Your task to perform on an android device: Open CNN.com Image 0: 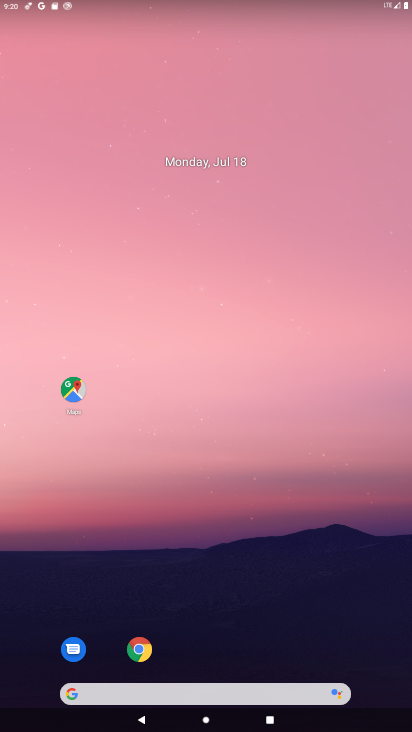
Step 0: drag from (227, 687) to (278, 19)
Your task to perform on an android device: Open CNN.com Image 1: 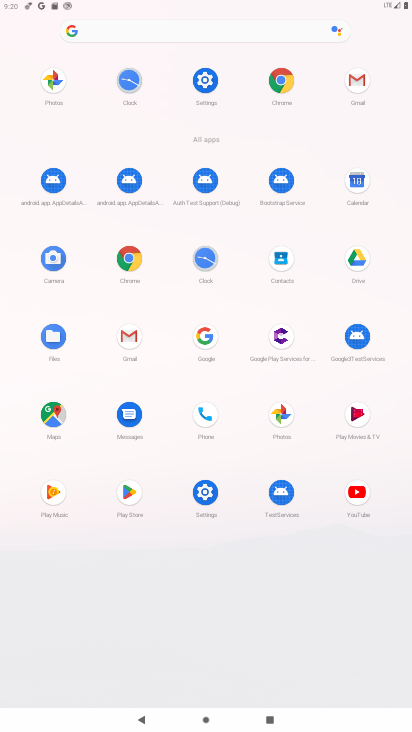
Step 1: drag from (232, 678) to (276, 494)
Your task to perform on an android device: Open CNN.com Image 2: 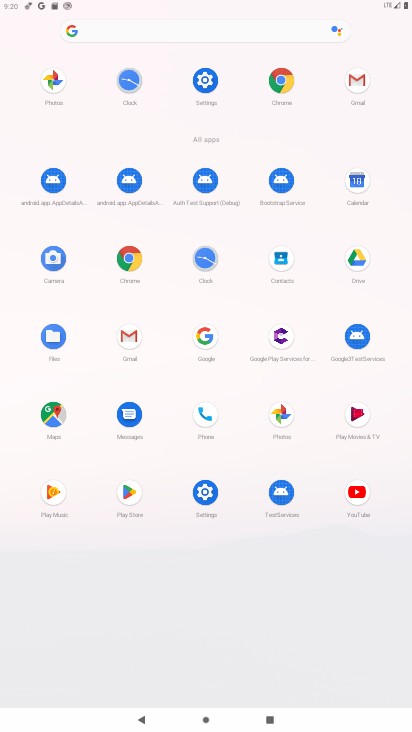
Step 2: click (201, 337)
Your task to perform on an android device: Open CNN.com Image 3: 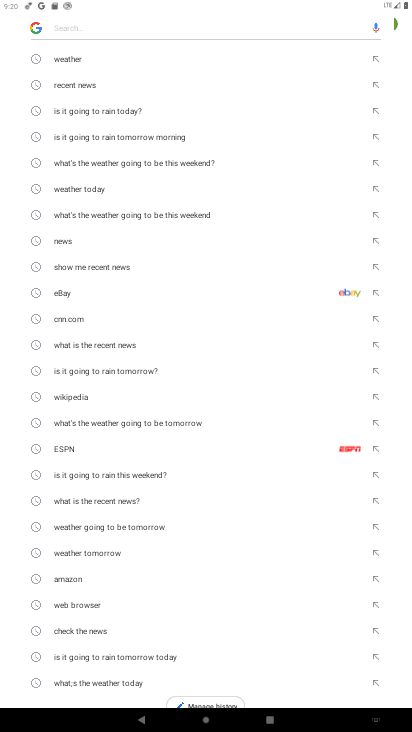
Step 3: click (45, 320)
Your task to perform on an android device: Open CNN.com Image 4: 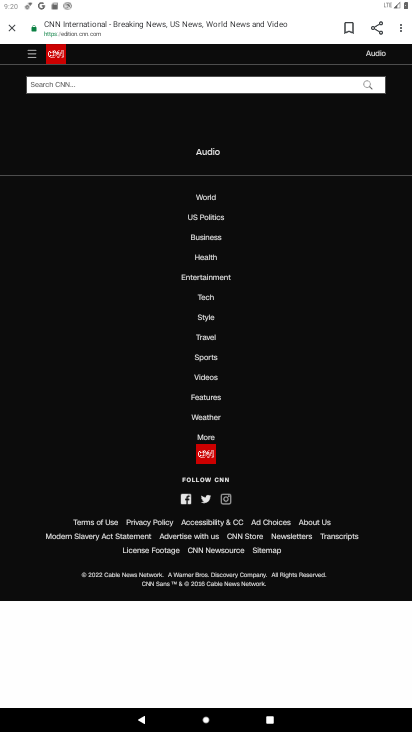
Step 4: task complete